Your task to perform on an android device: refresh tabs in the chrome app Image 0: 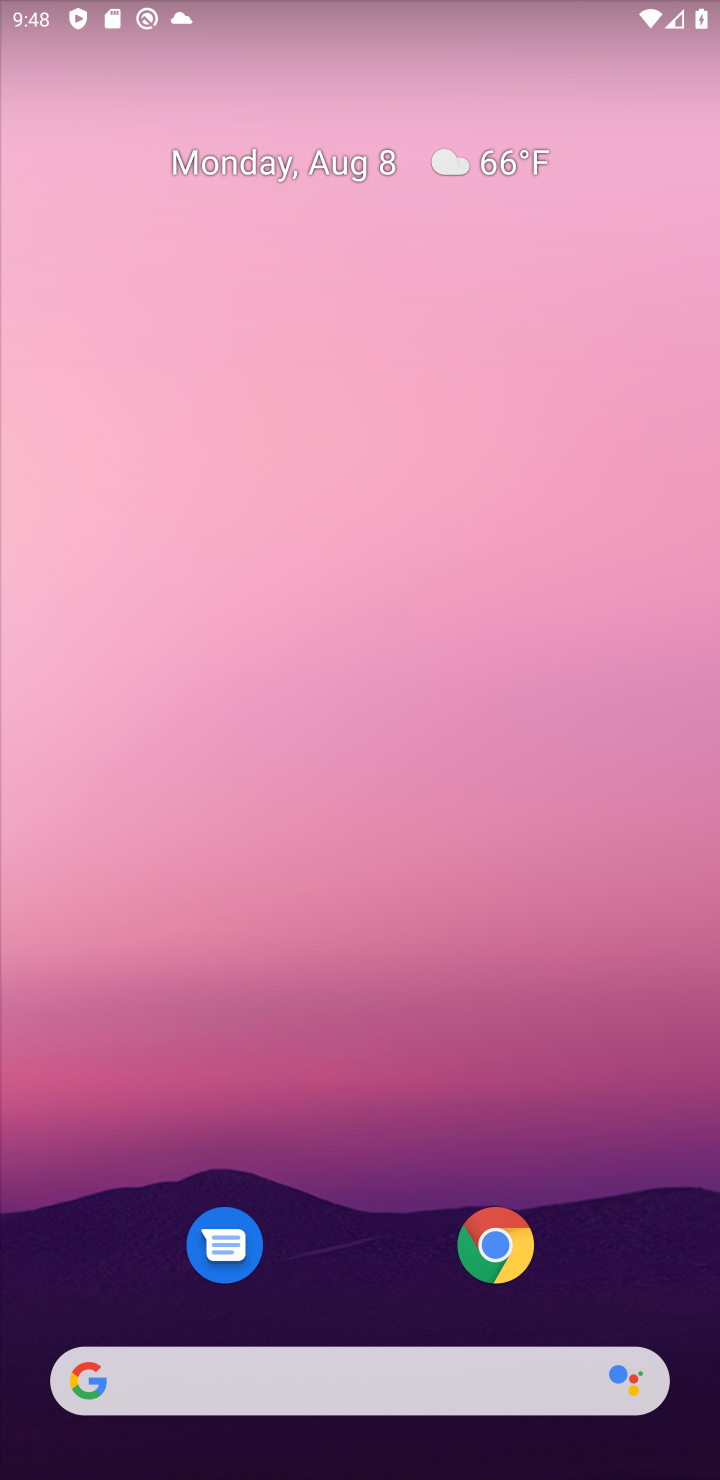
Step 0: click (496, 1244)
Your task to perform on an android device: refresh tabs in the chrome app Image 1: 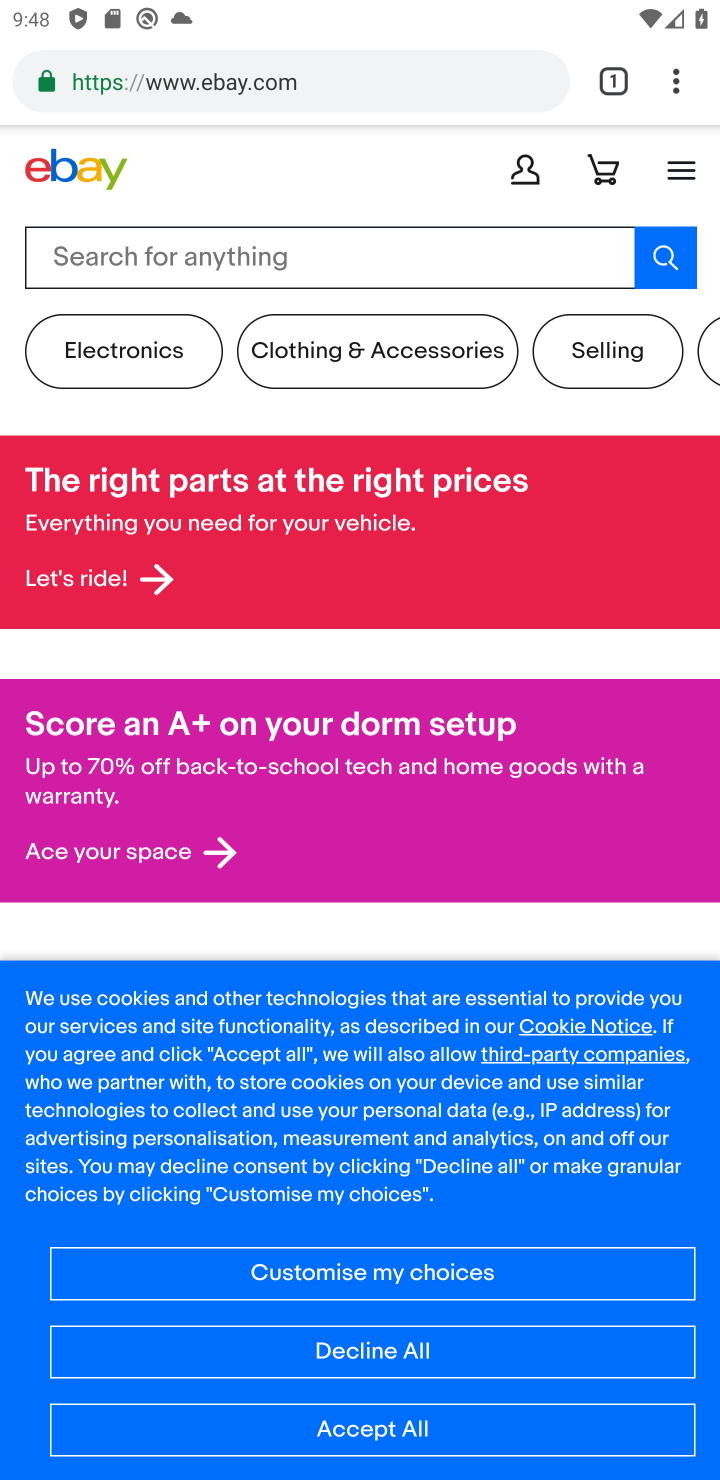
Step 1: click (673, 84)
Your task to perform on an android device: refresh tabs in the chrome app Image 2: 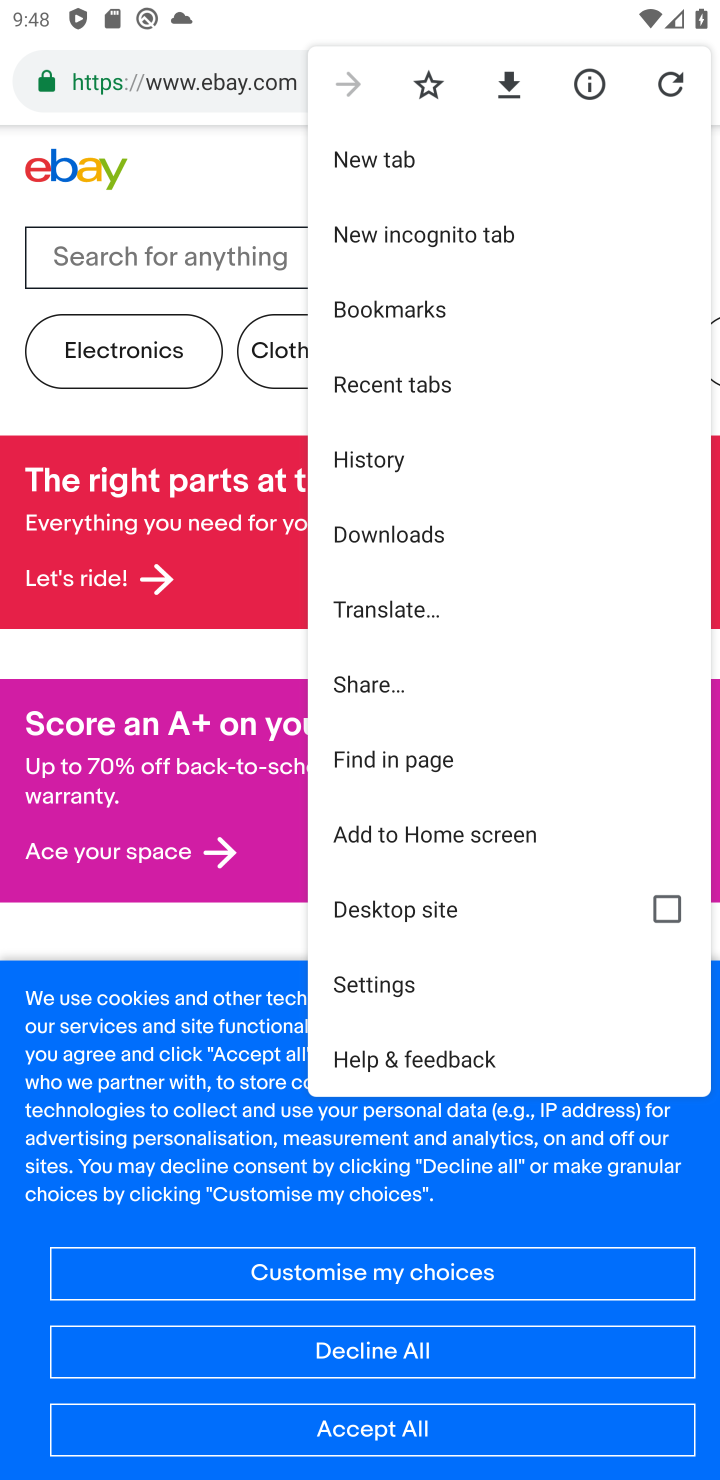
Step 2: click (671, 80)
Your task to perform on an android device: refresh tabs in the chrome app Image 3: 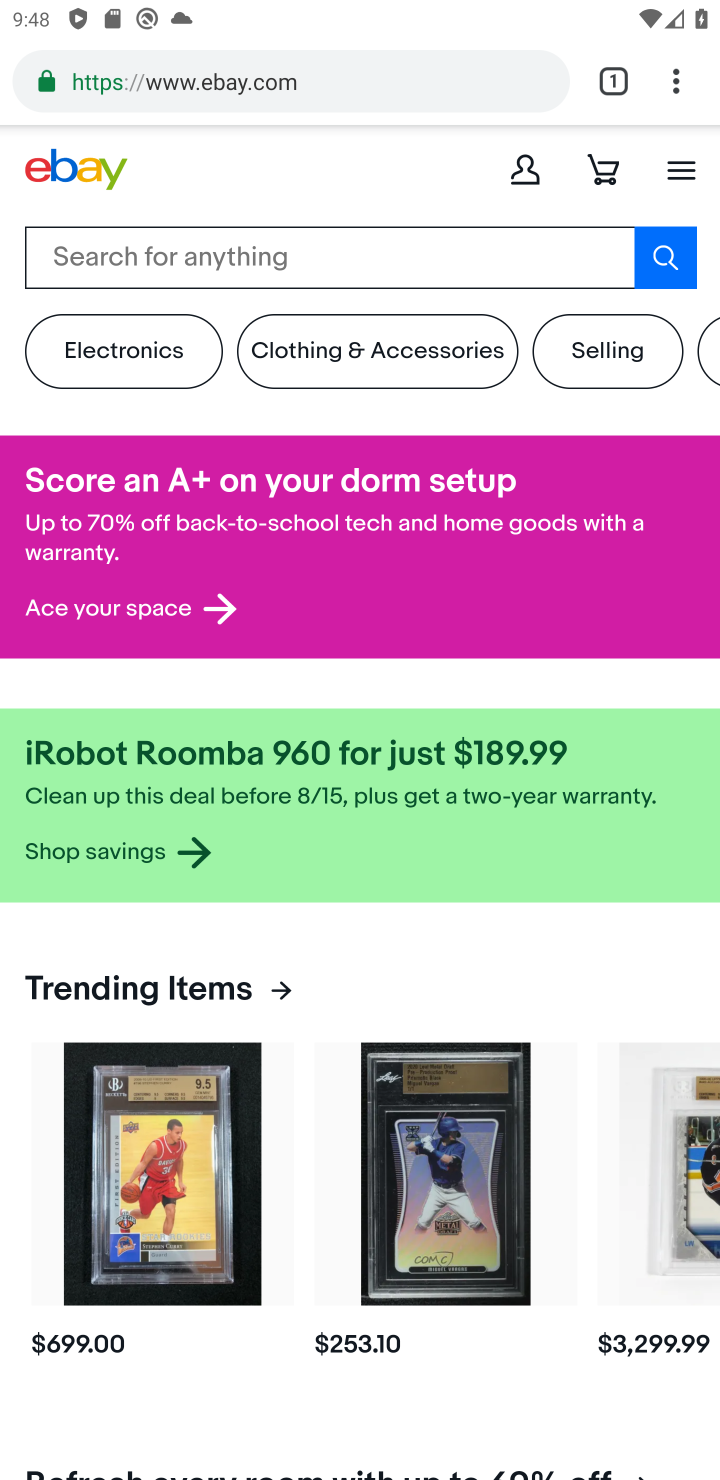
Step 3: task complete